Your task to perform on an android device: show emergency info Image 0: 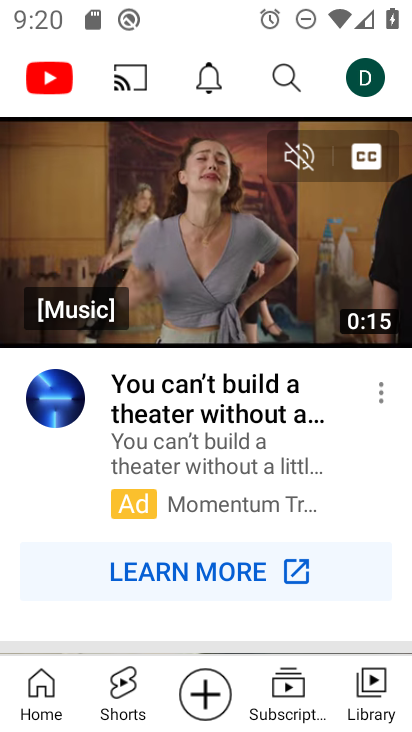
Step 0: press home button
Your task to perform on an android device: show emergency info Image 1: 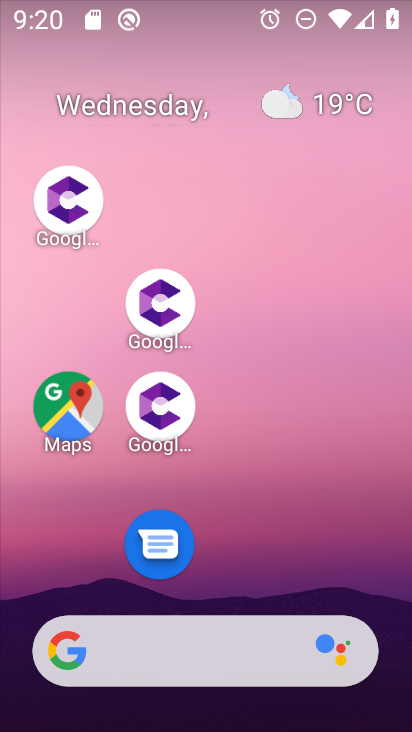
Step 1: drag from (299, 540) to (160, 30)
Your task to perform on an android device: show emergency info Image 2: 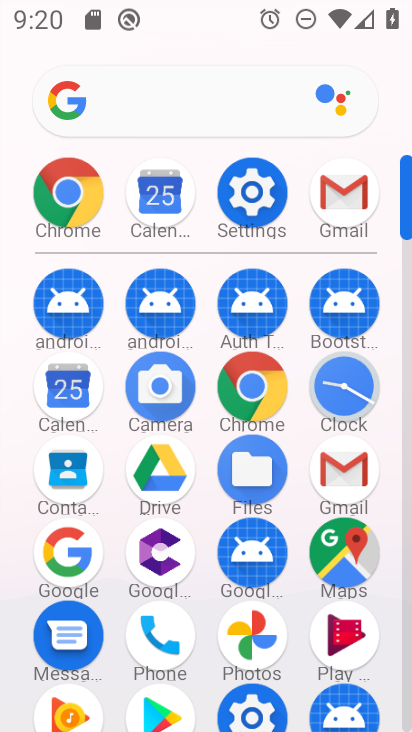
Step 2: click (247, 195)
Your task to perform on an android device: show emergency info Image 3: 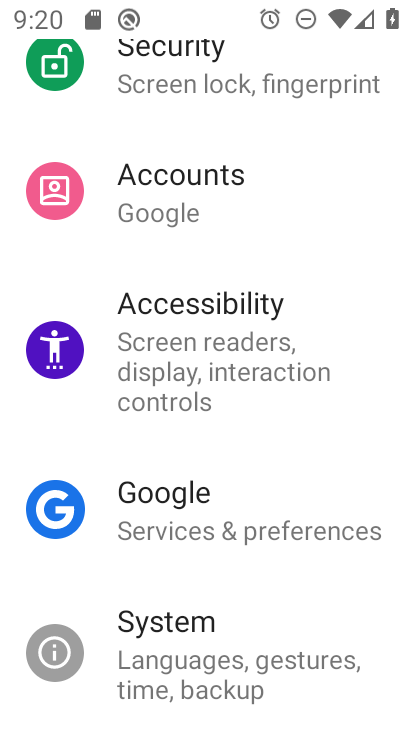
Step 3: drag from (234, 551) to (135, 92)
Your task to perform on an android device: show emergency info Image 4: 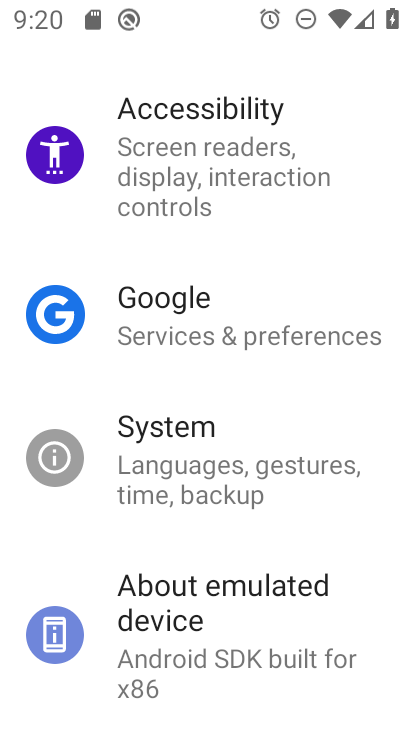
Step 4: click (173, 610)
Your task to perform on an android device: show emergency info Image 5: 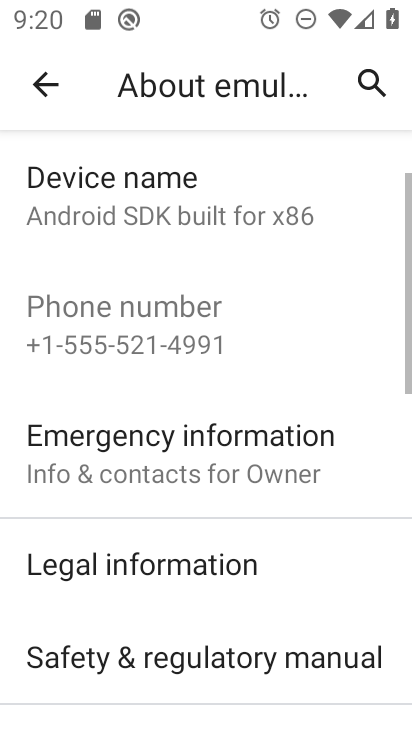
Step 5: click (155, 432)
Your task to perform on an android device: show emergency info Image 6: 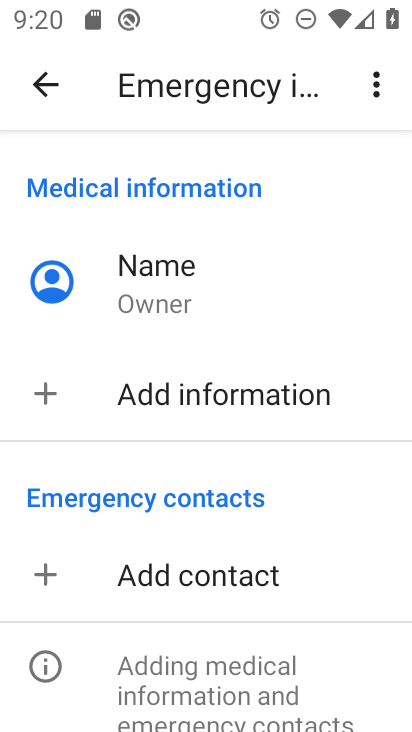
Step 6: task complete